Your task to perform on an android device: Go to notification settings Image 0: 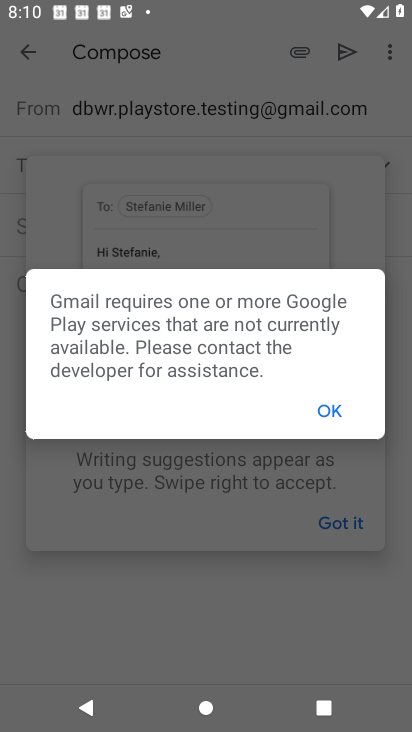
Step 0: press home button
Your task to perform on an android device: Go to notification settings Image 1: 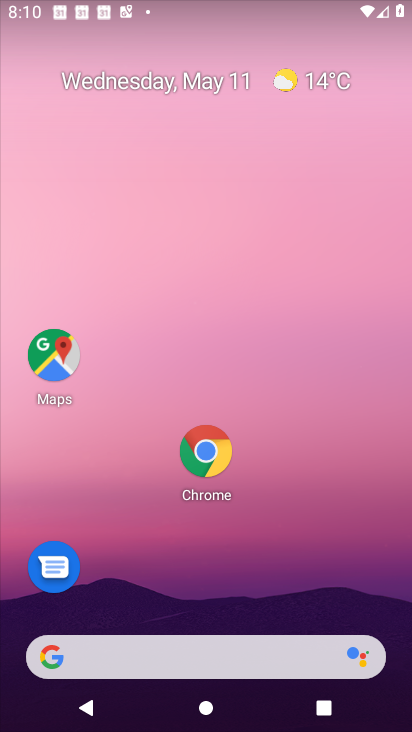
Step 1: drag from (186, 647) to (291, 128)
Your task to perform on an android device: Go to notification settings Image 2: 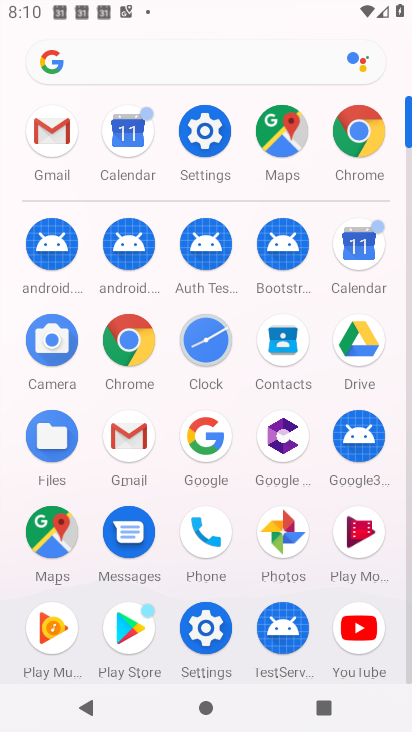
Step 2: click (207, 143)
Your task to perform on an android device: Go to notification settings Image 3: 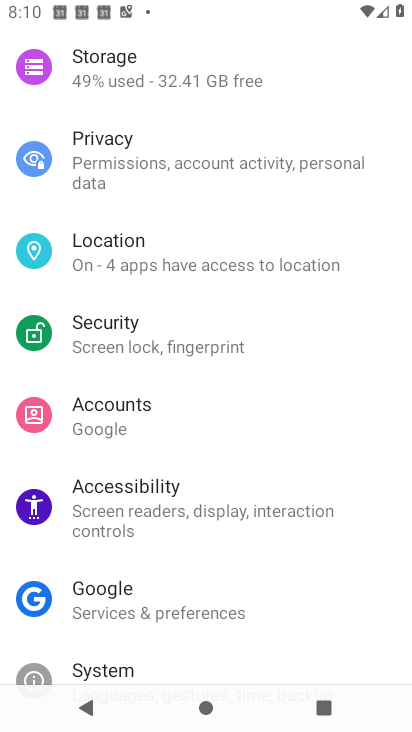
Step 3: drag from (292, 84) to (216, 569)
Your task to perform on an android device: Go to notification settings Image 4: 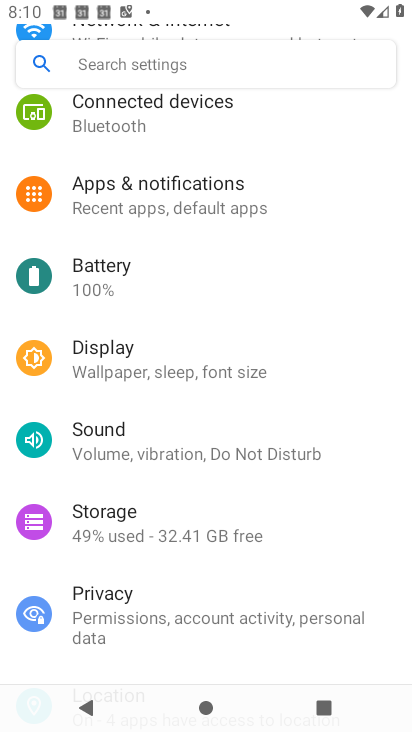
Step 4: click (185, 190)
Your task to perform on an android device: Go to notification settings Image 5: 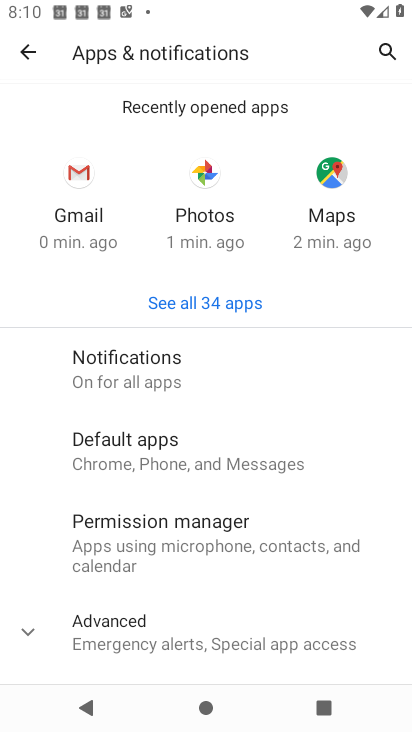
Step 5: click (141, 362)
Your task to perform on an android device: Go to notification settings Image 6: 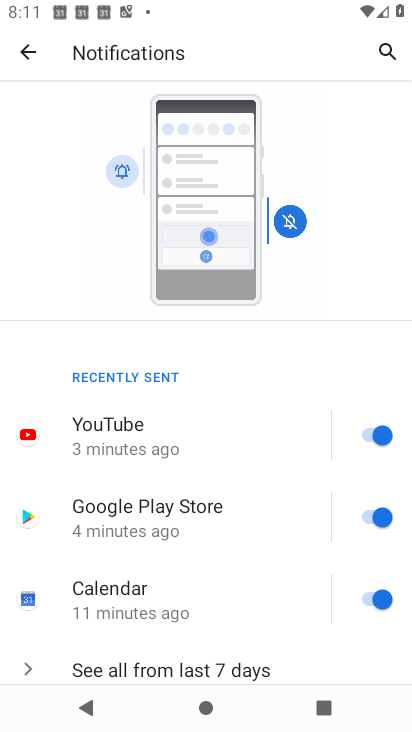
Step 6: task complete